Your task to perform on an android device: Open Google Image 0: 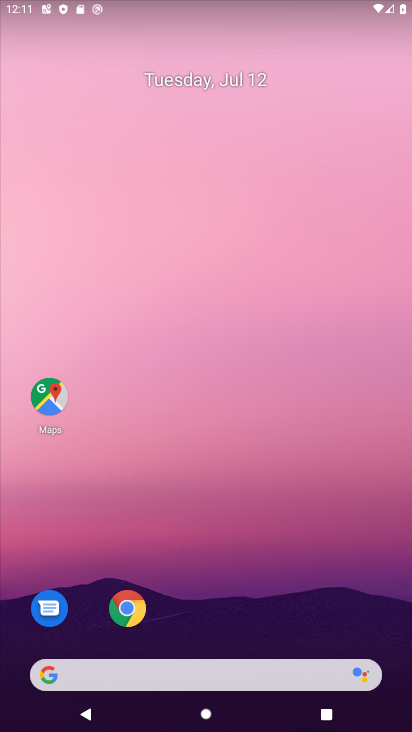
Step 0: click (89, 675)
Your task to perform on an android device: Open Google Image 1: 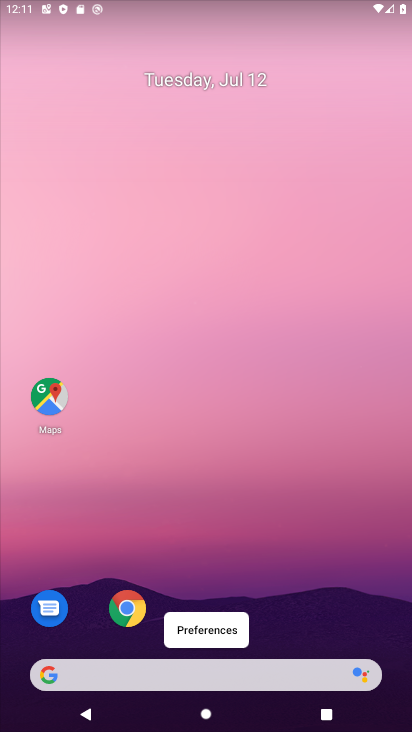
Step 1: click (89, 675)
Your task to perform on an android device: Open Google Image 2: 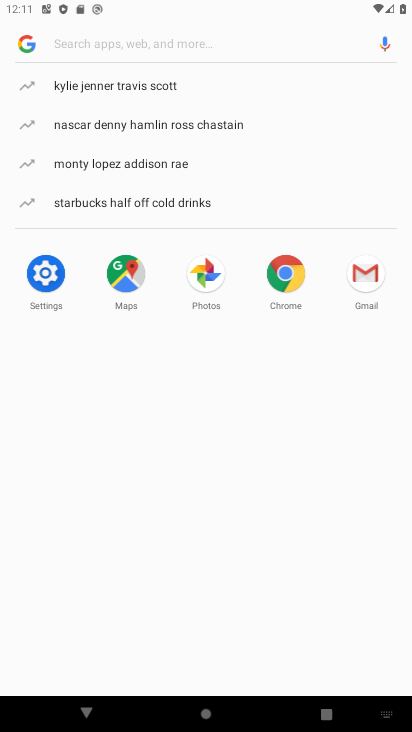
Step 2: task complete